Your task to perform on an android device: Open calendar and show me the second week of next month Image 0: 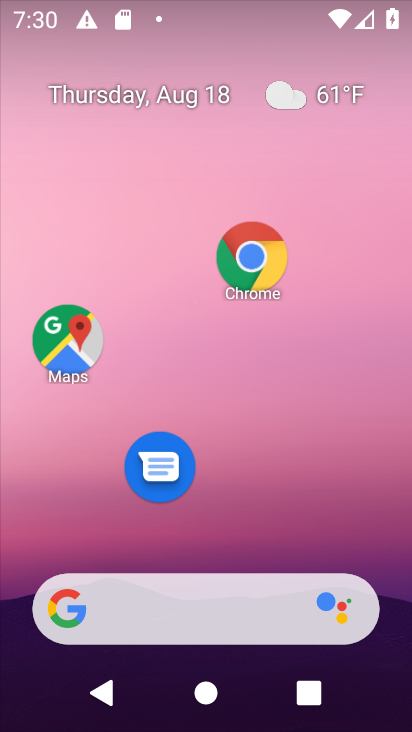
Step 0: drag from (256, 491) to (395, 33)
Your task to perform on an android device: Open calendar and show me the second week of next month Image 1: 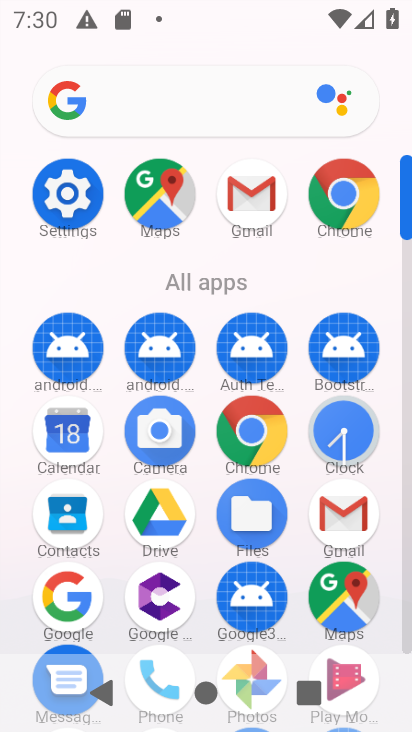
Step 1: task complete